Your task to perform on an android device: Go to notification settings Image 0: 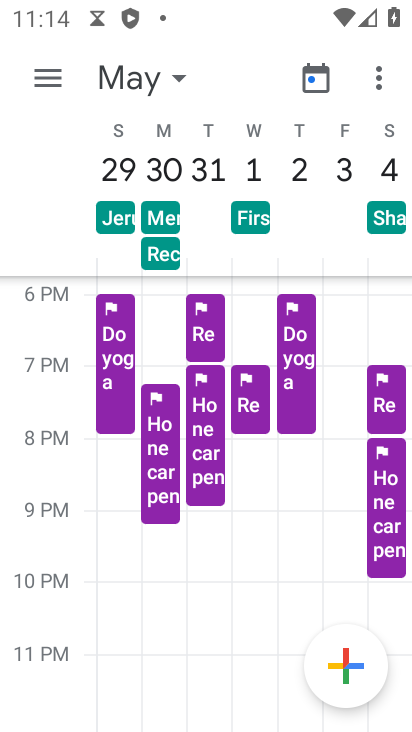
Step 0: press home button
Your task to perform on an android device: Go to notification settings Image 1: 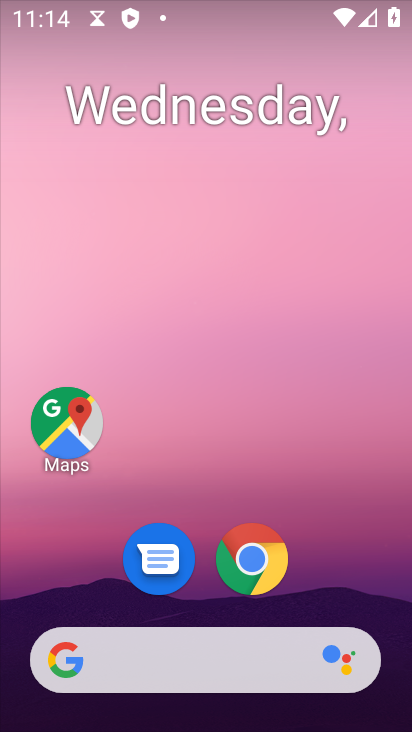
Step 1: drag from (369, 603) to (267, 197)
Your task to perform on an android device: Go to notification settings Image 2: 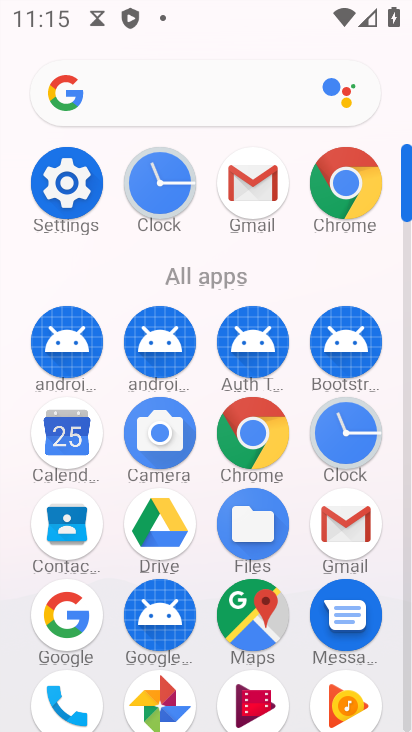
Step 2: click (68, 190)
Your task to perform on an android device: Go to notification settings Image 3: 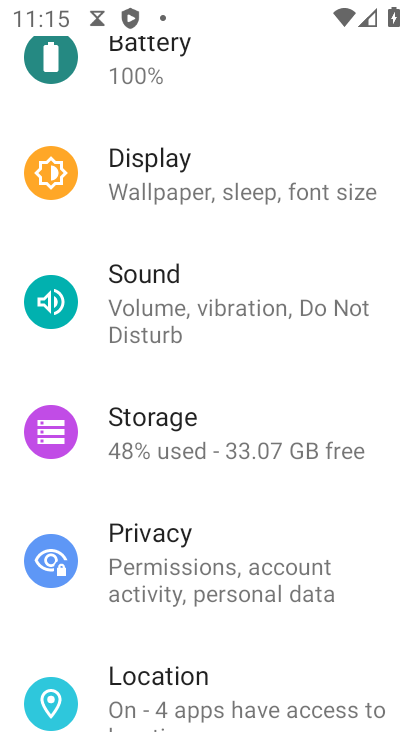
Step 3: drag from (257, 126) to (258, 394)
Your task to perform on an android device: Go to notification settings Image 4: 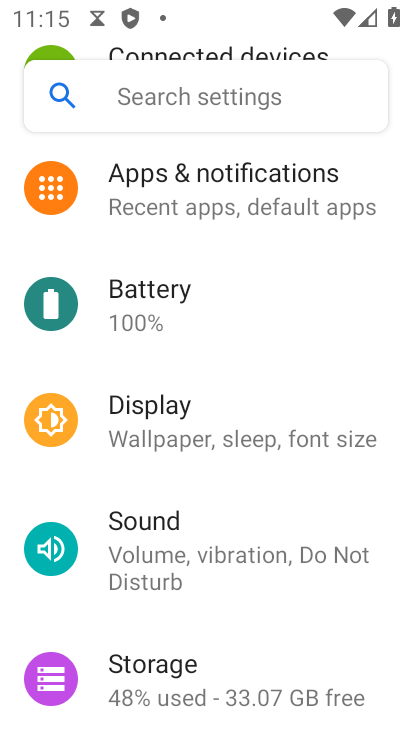
Step 4: click (228, 196)
Your task to perform on an android device: Go to notification settings Image 5: 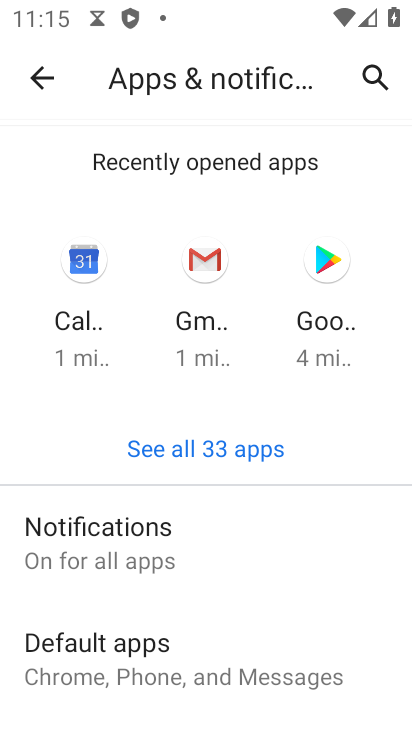
Step 5: click (209, 538)
Your task to perform on an android device: Go to notification settings Image 6: 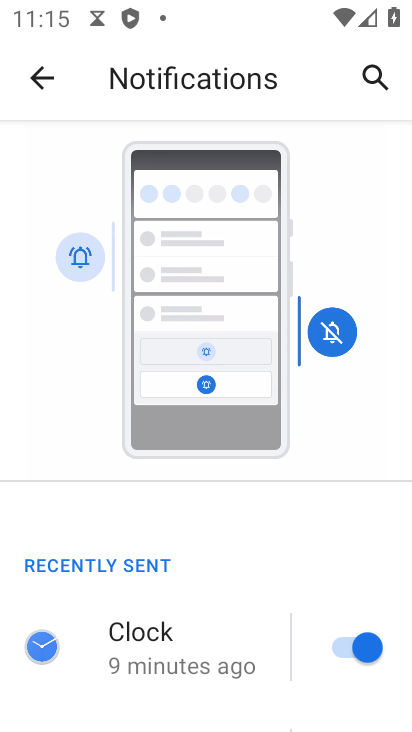
Step 6: task complete